Your task to perform on an android device: Open battery settings Image 0: 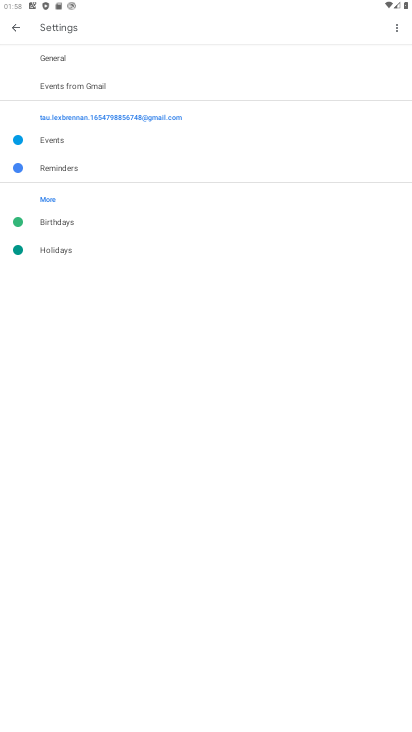
Step 0: press home button
Your task to perform on an android device: Open battery settings Image 1: 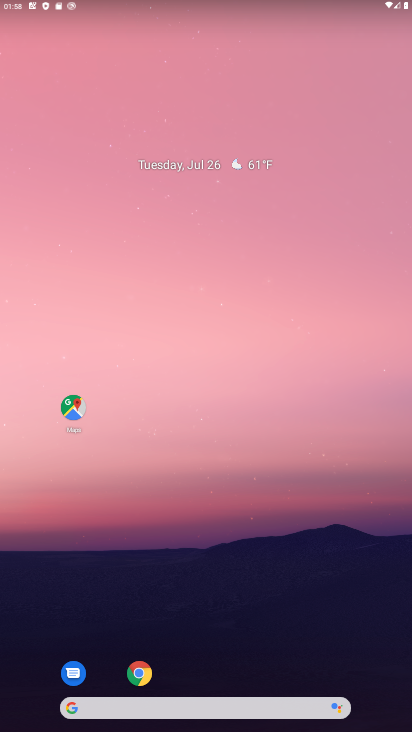
Step 1: drag from (232, 720) to (209, 205)
Your task to perform on an android device: Open battery settings Image 2: 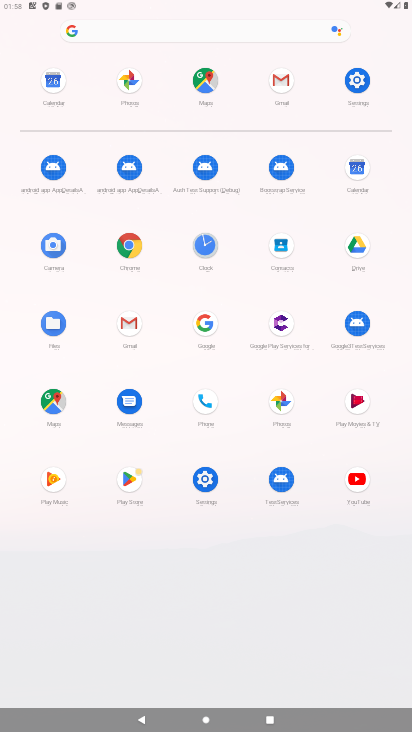
Step 2: click (365, 80)
Your task to perform on an android device: Open battery settings Image 3: 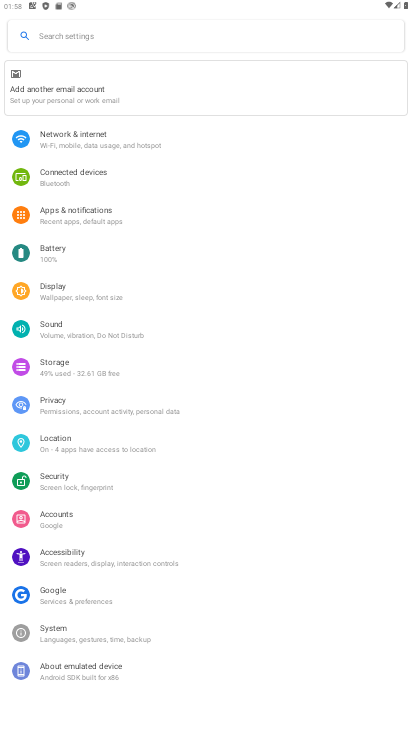
Step 3: click (42, 249)
Your task to perform on an android device: Open battery settings Image 4: 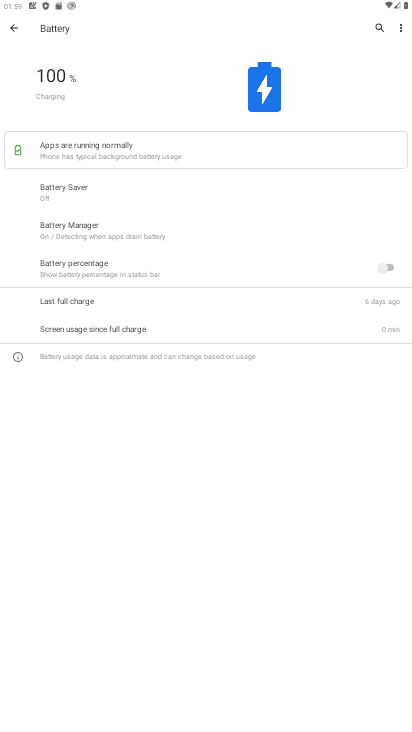
Step 4: task complete